Your task to perform on an android device: snooze an email in the gmail app Image 0: 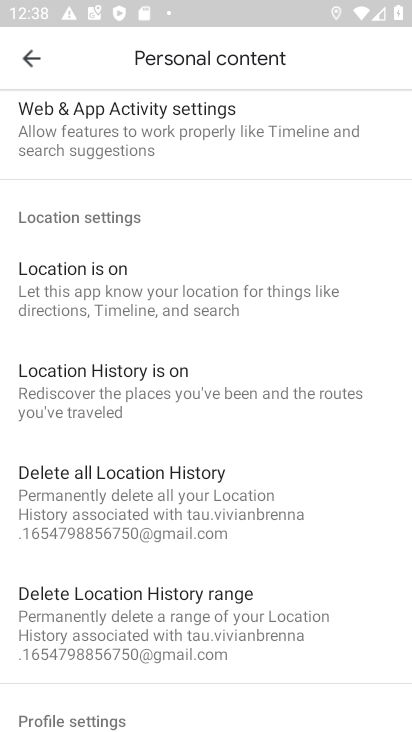
Step 0: press home button
Your task to perform on an android device: snooze an email in the gmail app Image 1: 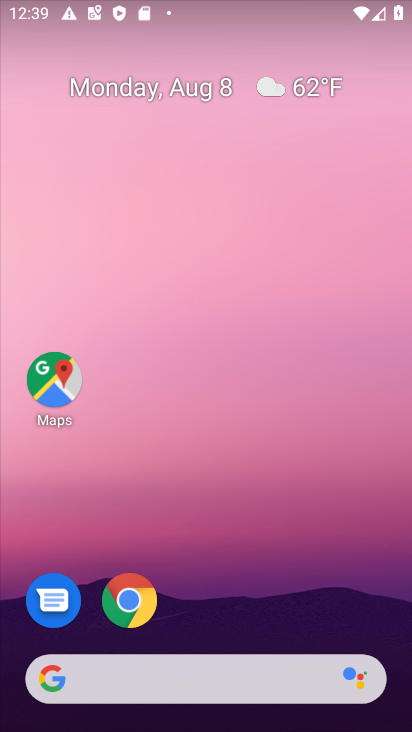
Step 1: drag from (242, 586) to (241, 103)
Your task to perform on an android device: snooze an email in the gmail app Image 2: 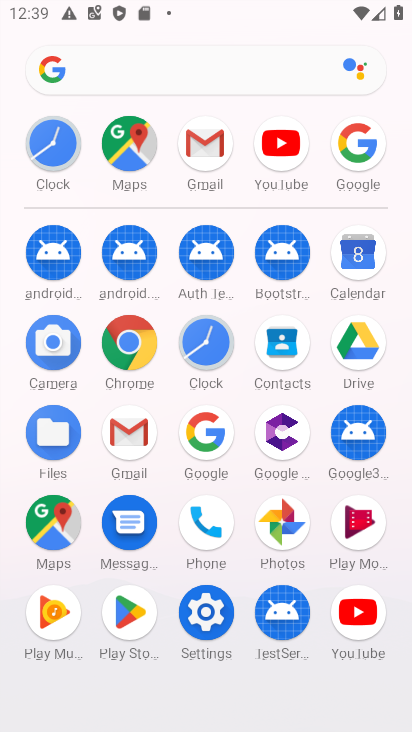
Step 2: click (203, 151)
Your task to perform on an android device: snooze an email in the gmail app Image 3: 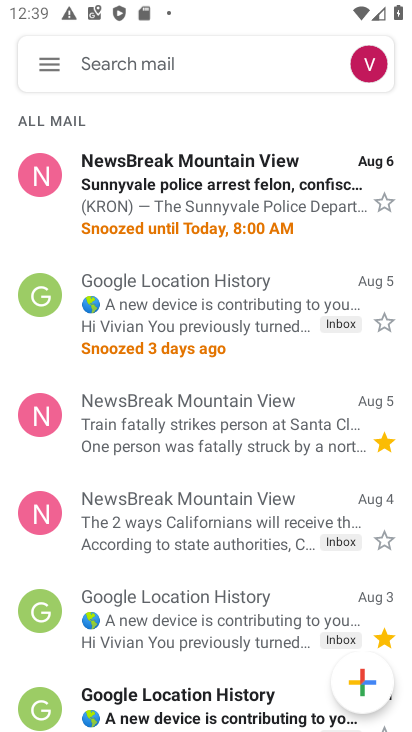
Step 3: drag from (210, 357) to (263, 357)
Your task to perform on an android device: snooze an email in the gmail app Image 4: 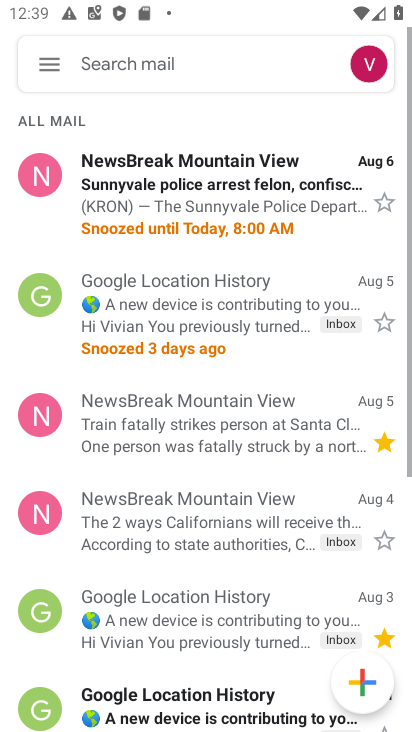
Step 4: click (184, 303)
Your task to perform on an android device: snooze an email in the gmail app Image 5: 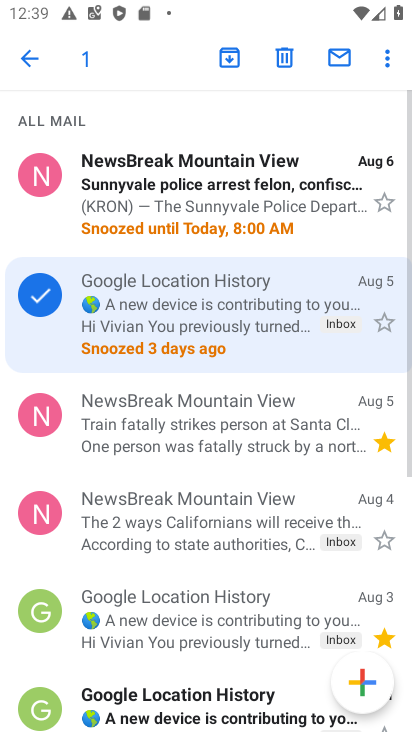
Step 5: click (383, 68)
Your task to perform on an android device: snooze an email in the gmail app Image 6: 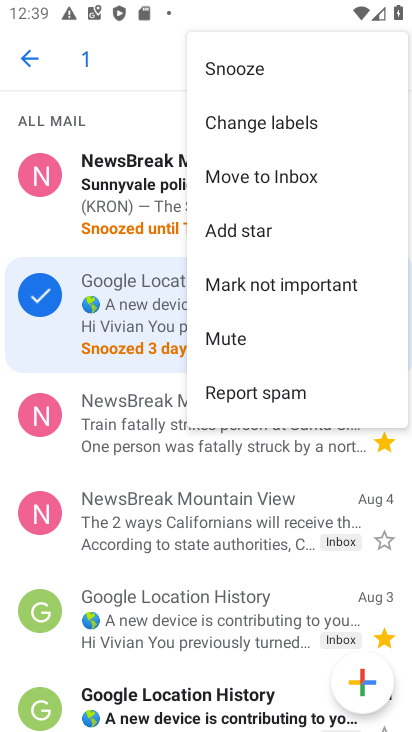
Step 6: drag from (341, 161) to (360, 210)
Your task to perform on an android device: snooze an email in the gmail app Image 7: 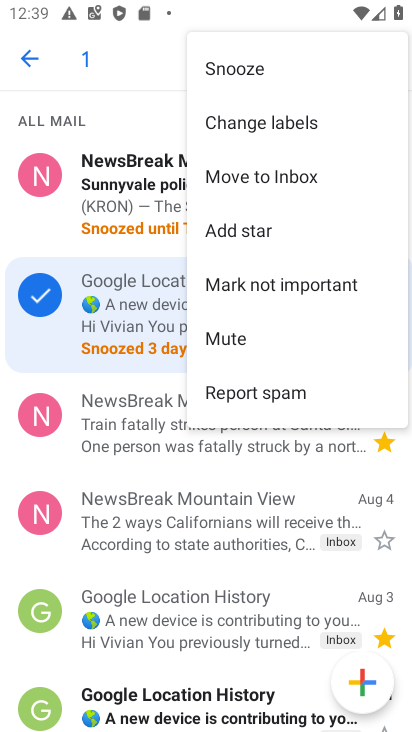
Step 7: click (215, 81)
Your task to perform on an android device: snooze an email in the gmail app Image 8: 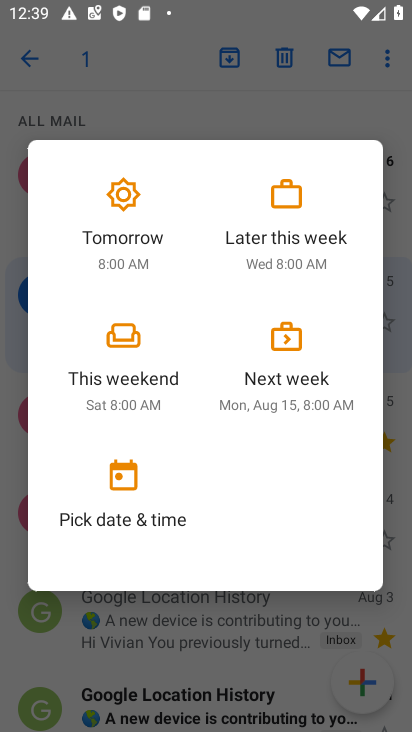
Step 8: click (157, 234)
Your task to perform on an android device: snooze an email in the gmail app Image 9: 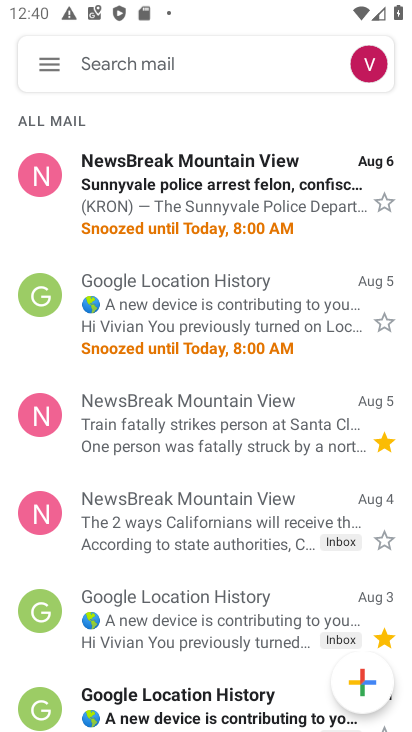
Step 9: task complete